Your task to perform on an android device: Look up the best selling books on Goodreads. Image 0: 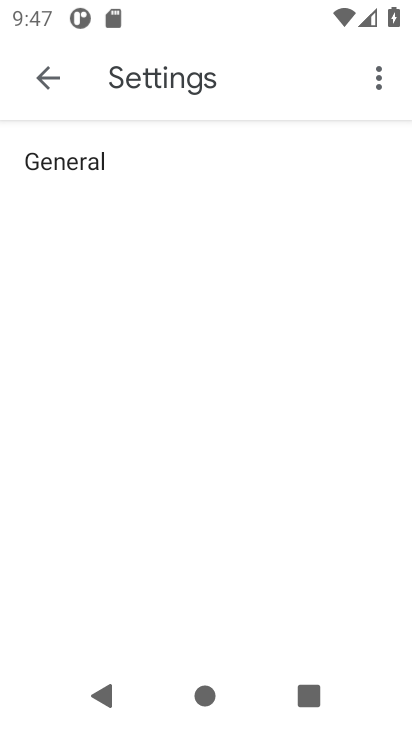
Step 0: click (387, 97)
Your task to perform on an android device: Look up the best selling books on Goodreads. Image 1: 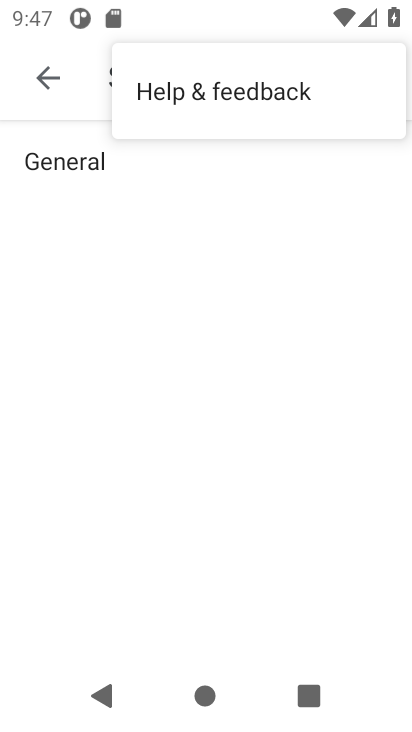
Step 1: click (223, 104)
Your task to perform on an android device: Look up the best selling books on Goodreads. Image 2: 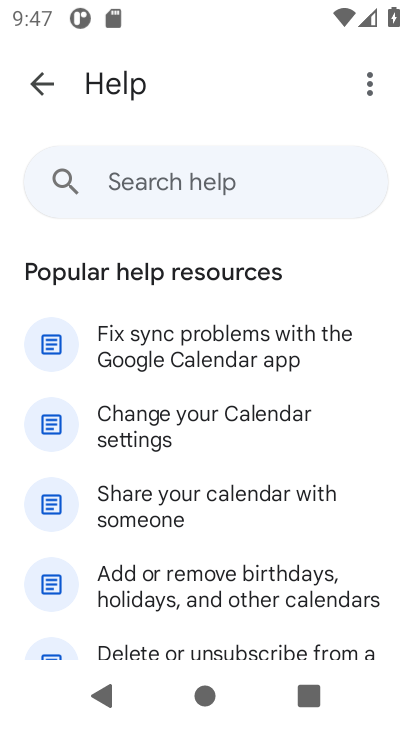
Step 2: task complete